Your task to perform on an android device: change the clock display to digital Image 0: 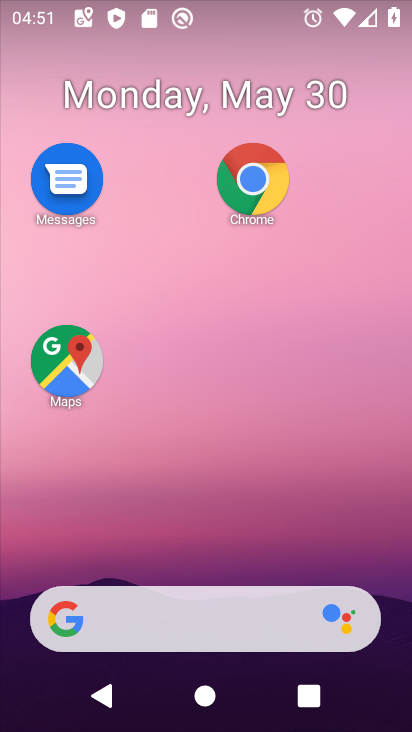
Step 0: drag from (214, 559) to (168, 85)
Your task to perform on an android device: change the clock display to digital Image 1: 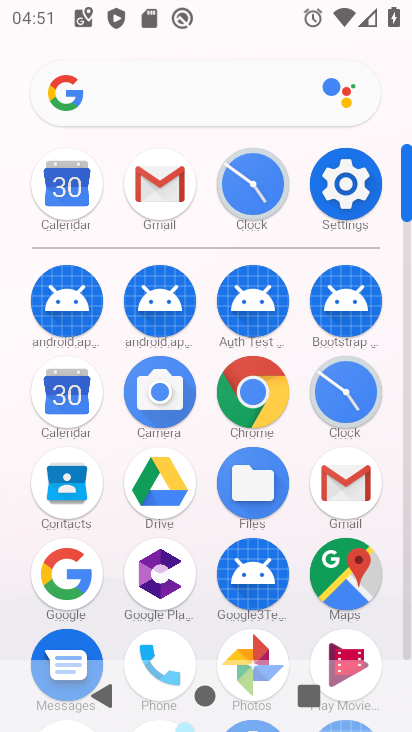
Step 1: click (238, 206)
Your task to perform on an android device: change the clock display to digital Image 2: 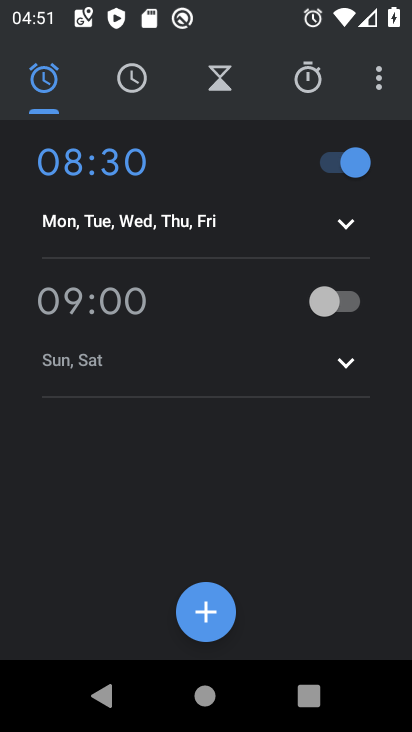
Step 2: click (386, 90)
Your task to perform on an android device: change the clock display to digital Image 3: 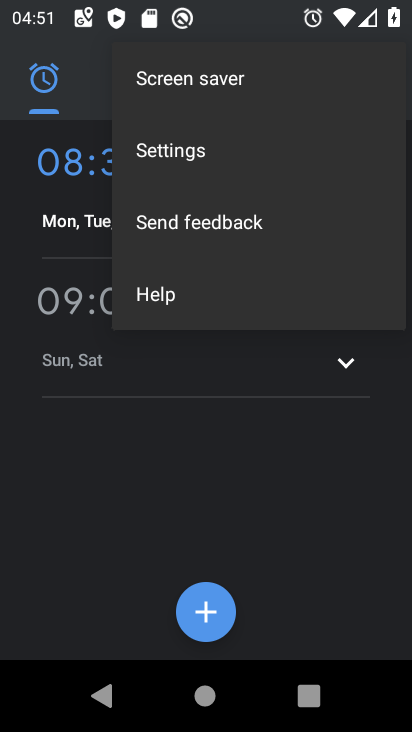
Step 3: click (164, 148)
Your task to perform on an android device: change the clock display to digital Image 4: 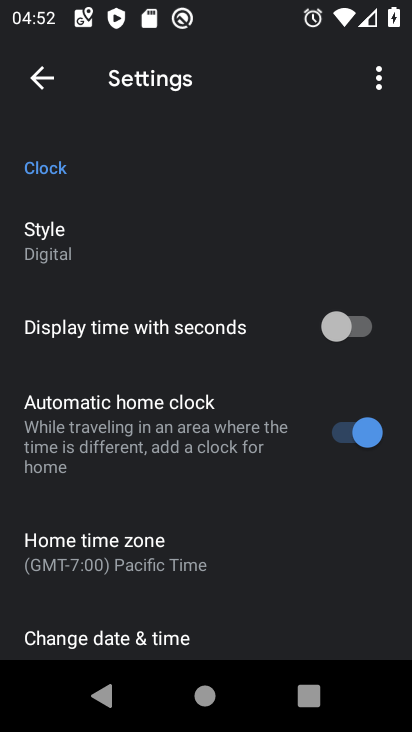
Step 4: task complete